Your task to perform on an android device: Go to eBay Image 0: 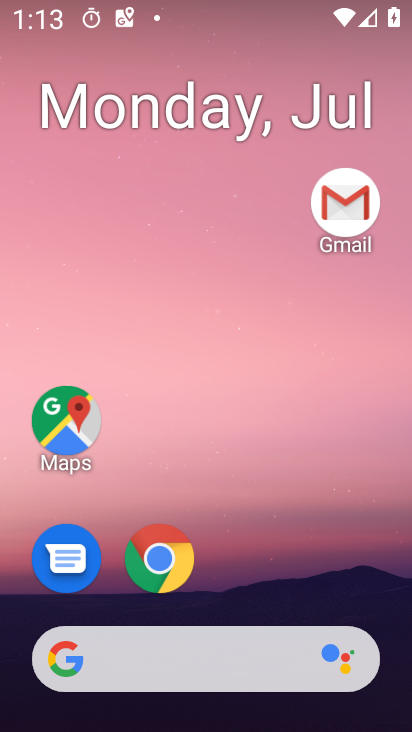
Step 0: drag from (313, 585) to (311, 79)
Your task to perform on an android device: Go to eBay Image 1: 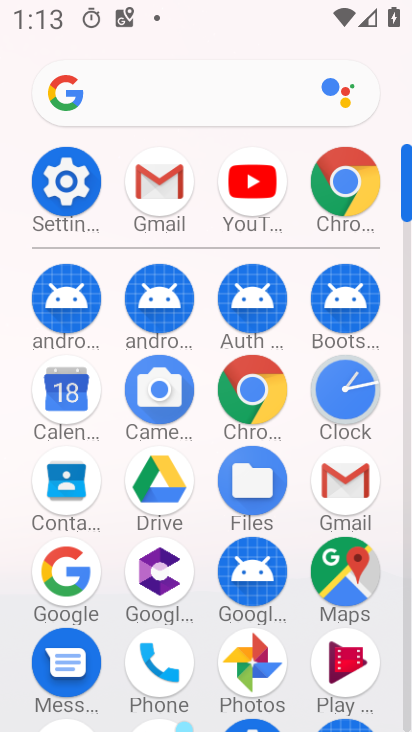
Step 1: click (265, 396)
Your task to perform on an android device: Go to eBay Image 2: 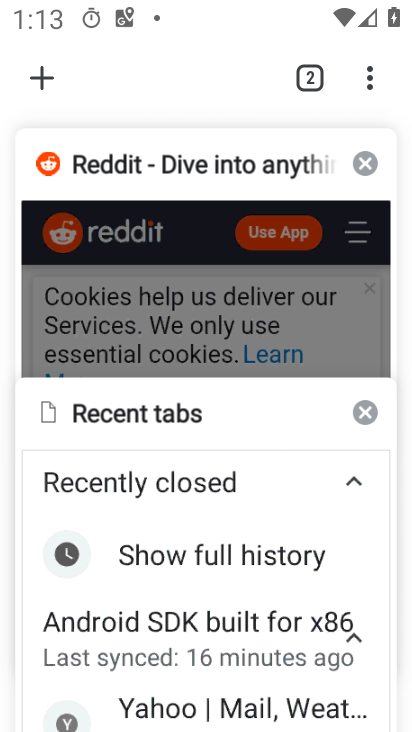
Step 2: press back button
Your task to perform on an android device: Go to eBay Image 3: 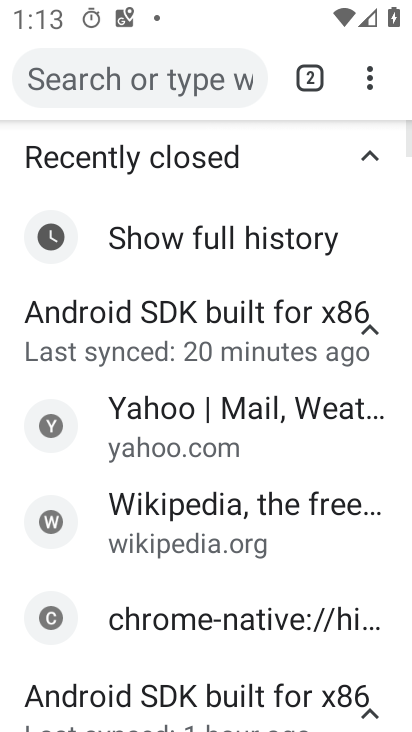
Step 3: press back button
Your task to perform on an android device: Go to eBay Image 4: 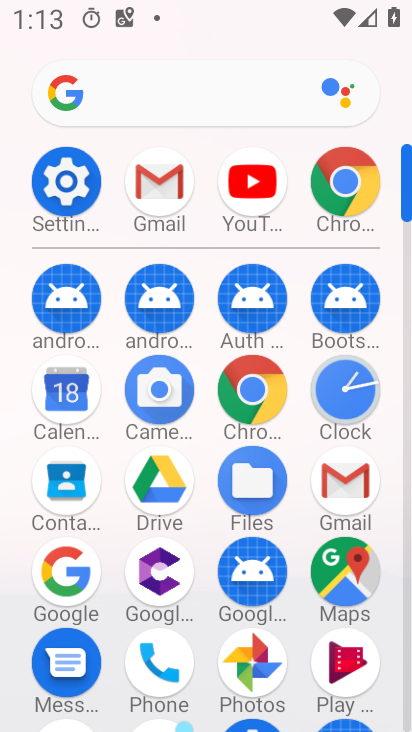
Step 4: click (238, 395)
Your task to perform on an android device: Go to eBay Image 5: 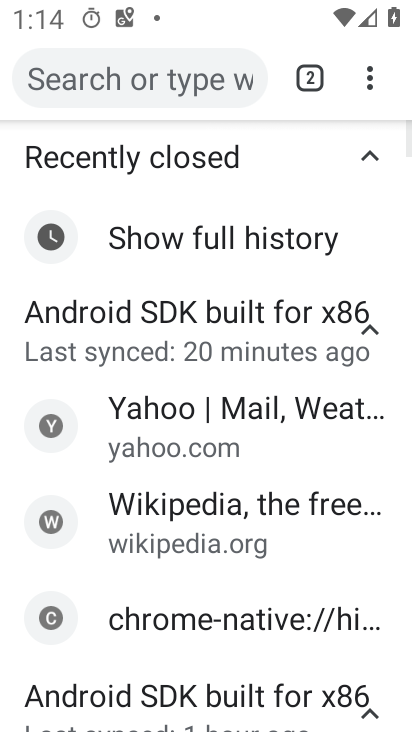
Step 5: click (224, 78)
Your task to perform on an android device: Go to eBay Image 6: 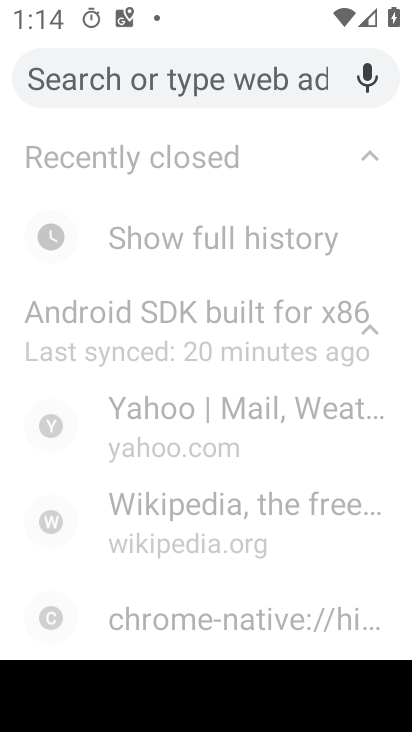
Step 6: type "ebay"
Your task to perform on an android device: Go to eBay Image 7: 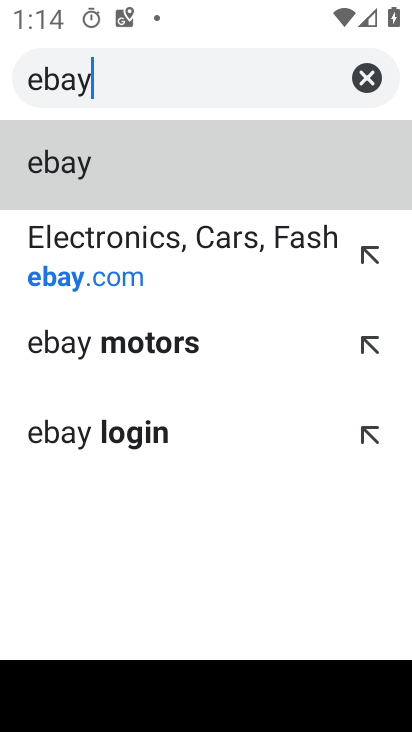
Step 7: click (295, 176)
Your task to perform on an android device: Go to eBay Image 8: 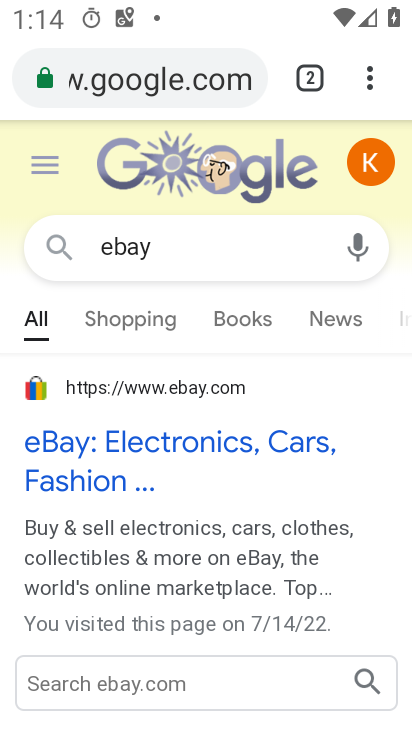
Step 8: task complete